Your task to perform on an android device: change the clock style Image 0: 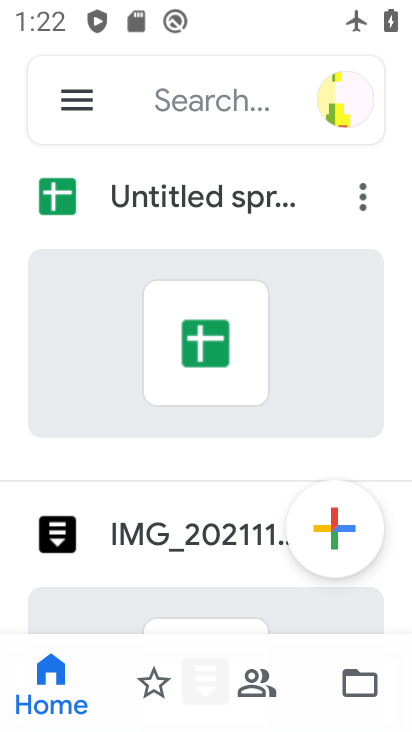
Step 0: press home button
Your task to perform on an android device: change the clock style Image 1: 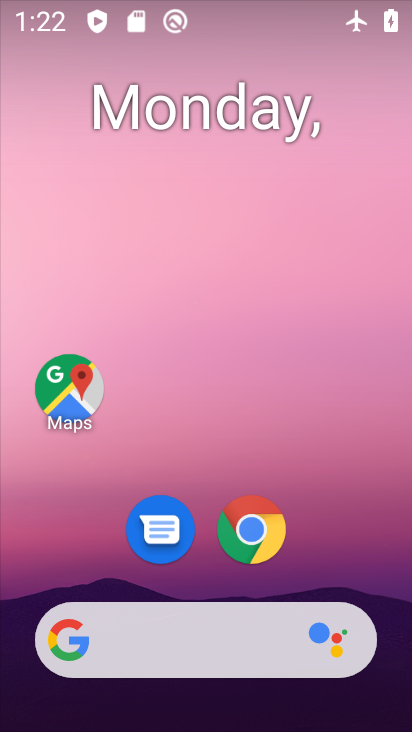
Step 1: drag from (354, 487) to (289, 69)
Your task to perform on an android device: change the clock style Image 2: 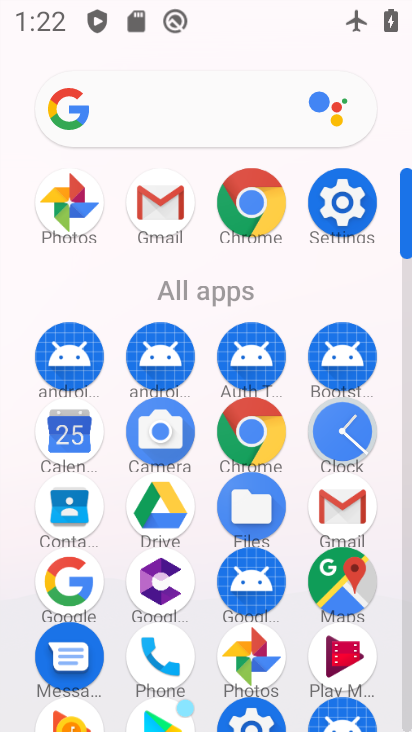
Step 2: click (339, 435)
Your task to perform on an android device: change the clock style Image 3: 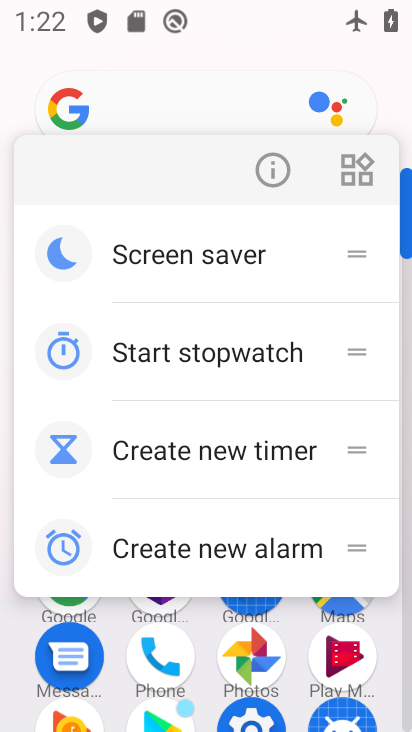
Step 3: press back button
Your task to perform on an android device: change the clock style Image 4: 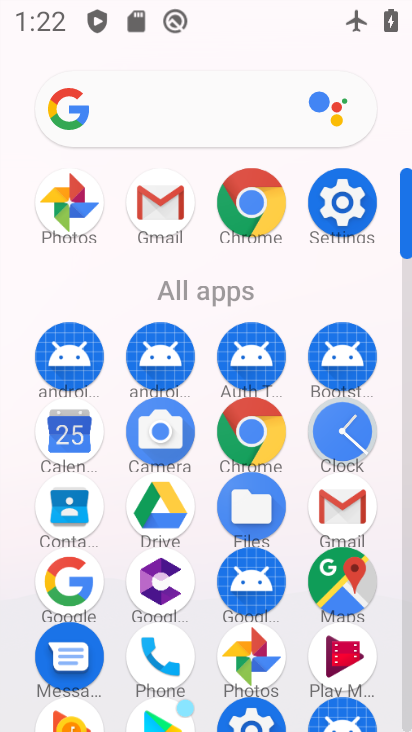
Step 4: click (355, 432)
Your task to perform on an android device: change the clock style Image 5: 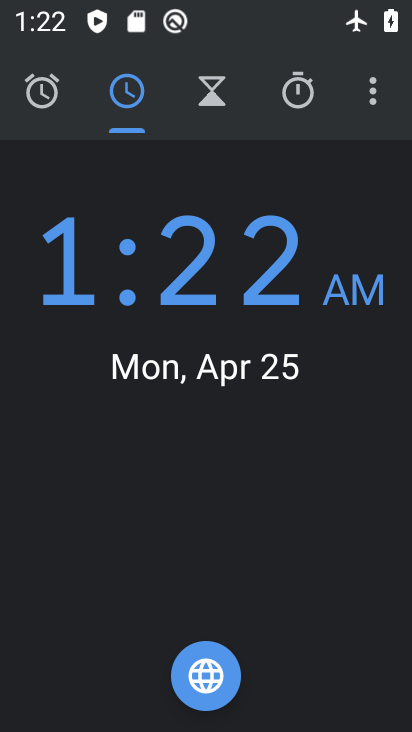
Step 5: click (368, 87)
Your task to perform on an android device: change the clock style Image 6: 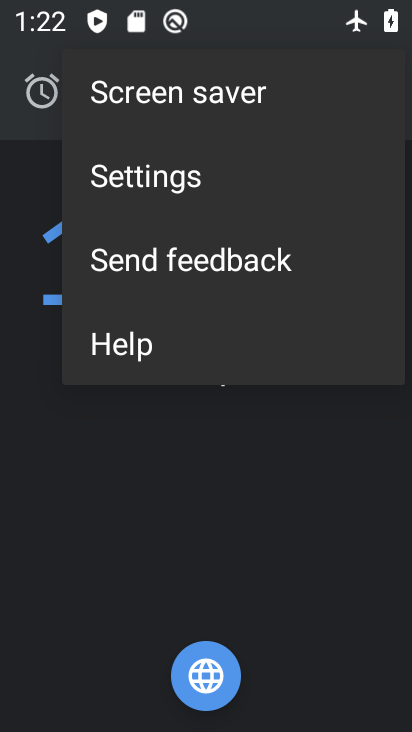
Step 6: click (157, 178)
Your task to perform on an android device: change the clock style Image 7: 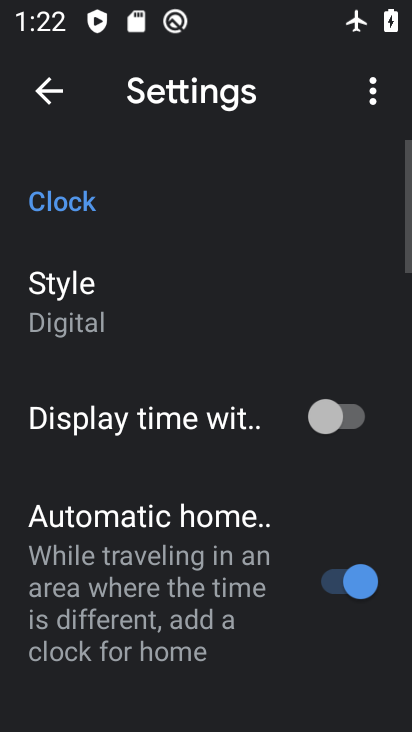
Step 7: click (69, 307)
Your task to perform on an android device: change the clock style Image 8: 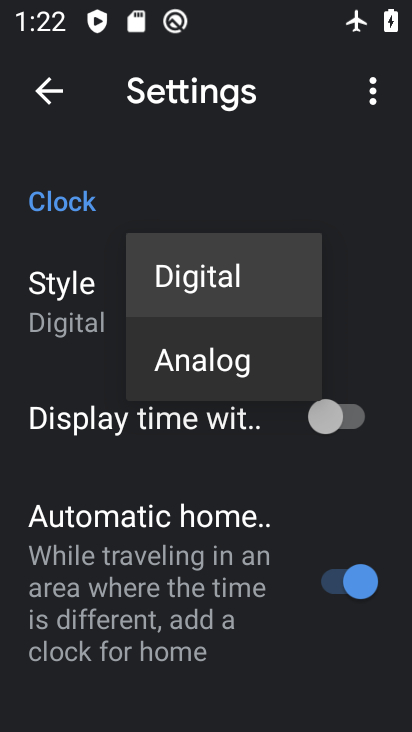
Step 8: click (155, 363)
Your task to perform on an android device: change the clock style Image 9: 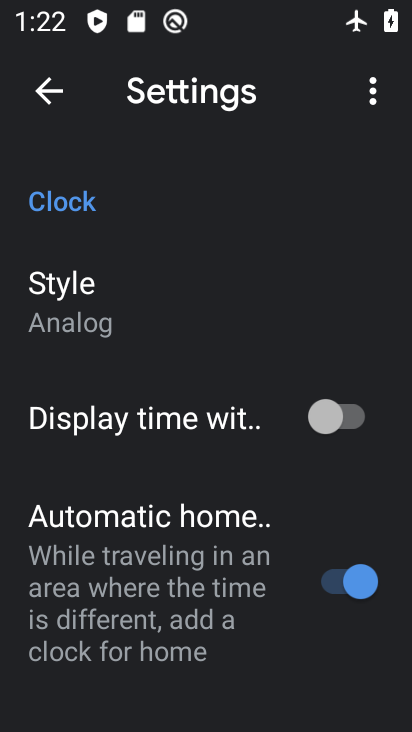
Step 9: task complete